Your task to perform on an android device: toggle pop-ups in chrome Image 0: 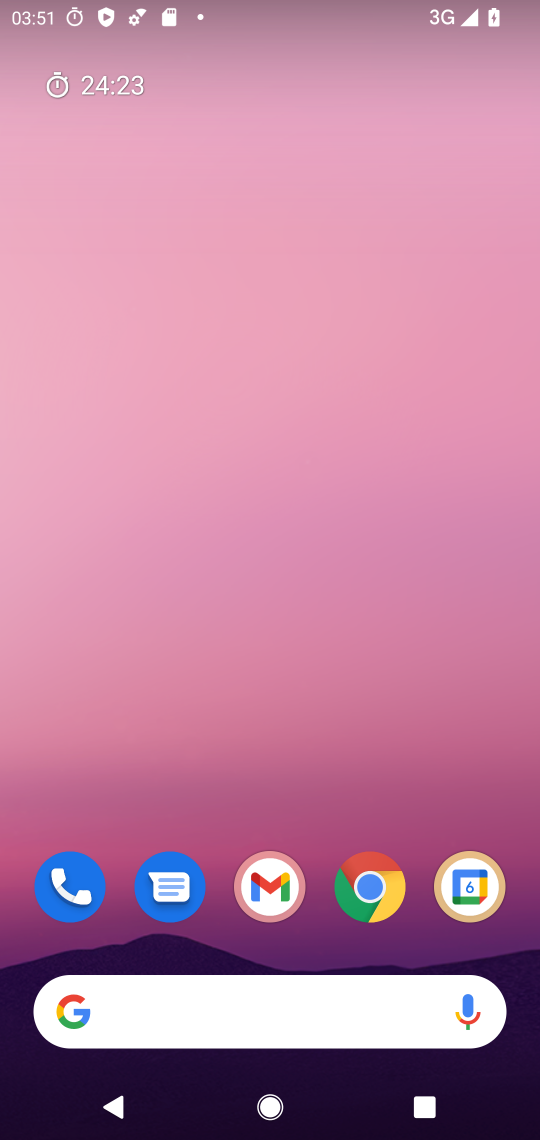
Step 0: drag from (354, 683) to (358, 307)
Your task to perform on an android device: toggle pop-ups in chrome Image 1: 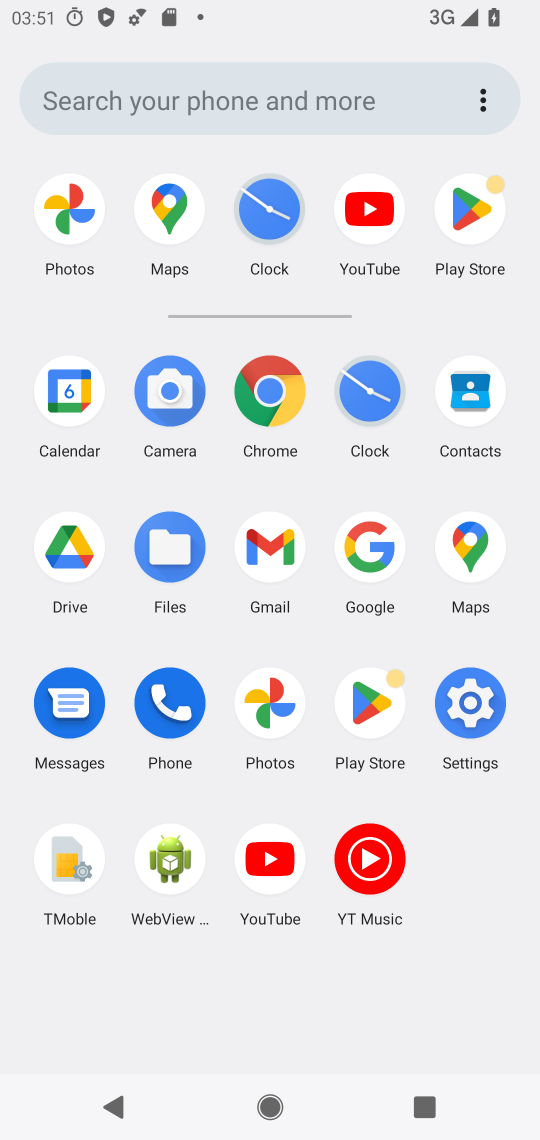
Step 1: click (271, 392)
Your task to perform on an android device: toggle pop-ups in chrome Image 2: 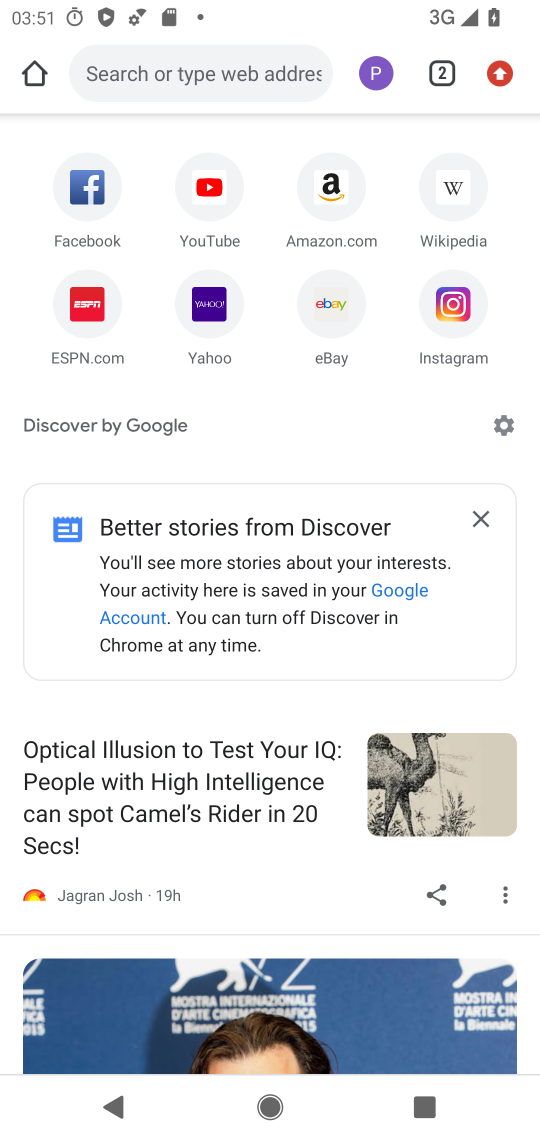
Step 2: click (496, 73)
Your task to perform on an android device: toggle pop-ups in chrome Image 3: 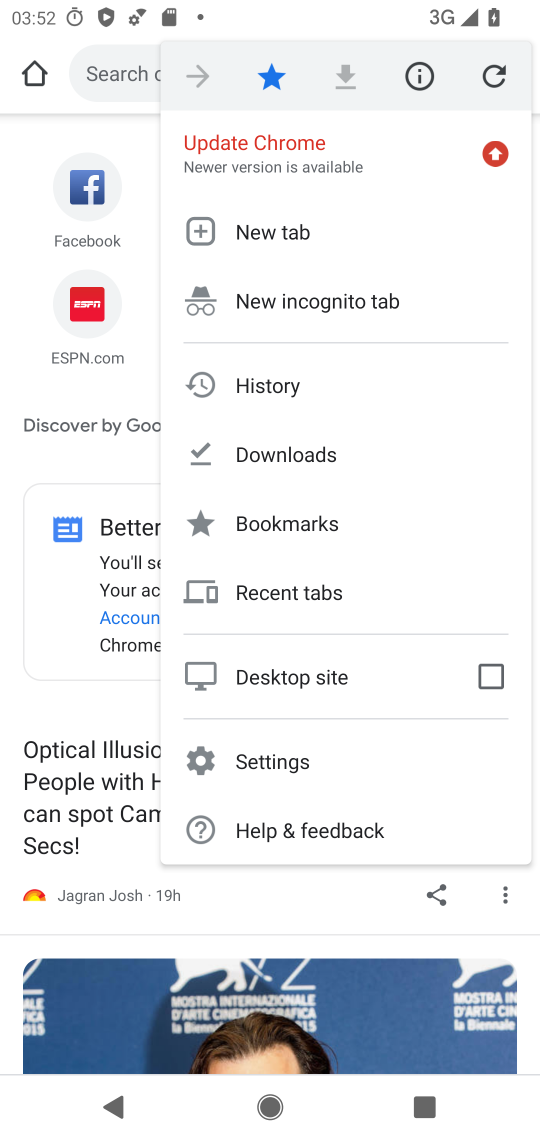
Step 3: click (322, 760)
Your task to perform on an android device: toggle pop-ups in chrome Image 4: 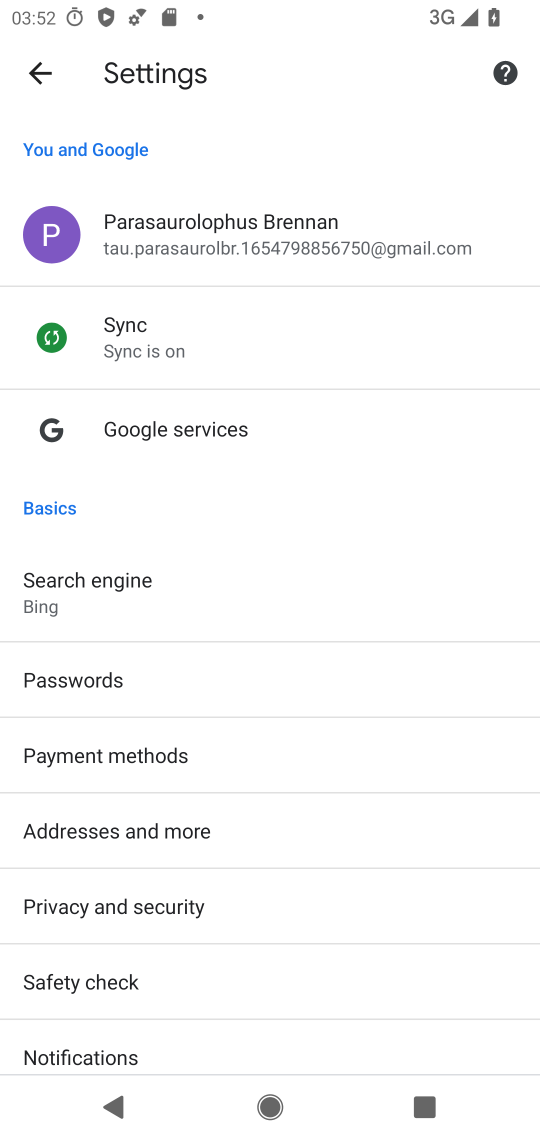
Step 4: drag from (347, 826) to (369, 690)
Your task to perform on an android device: toggle pop-ups in chrome Image 5: 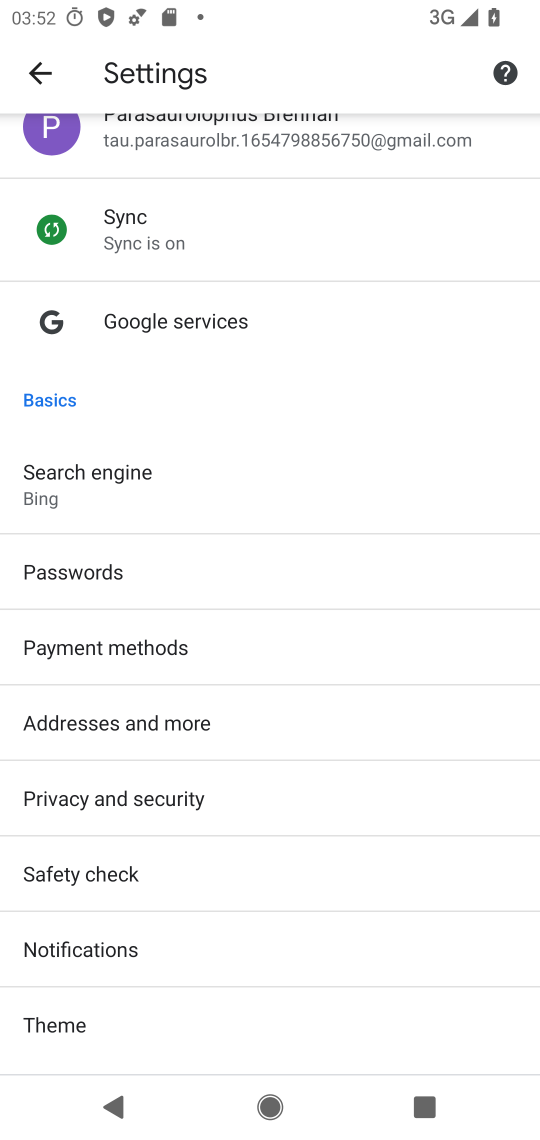
Step 5: drag from (372, 860) to (376, 685)
Your task to perform on an android device: toggle pop-ups in chrome Image 6: 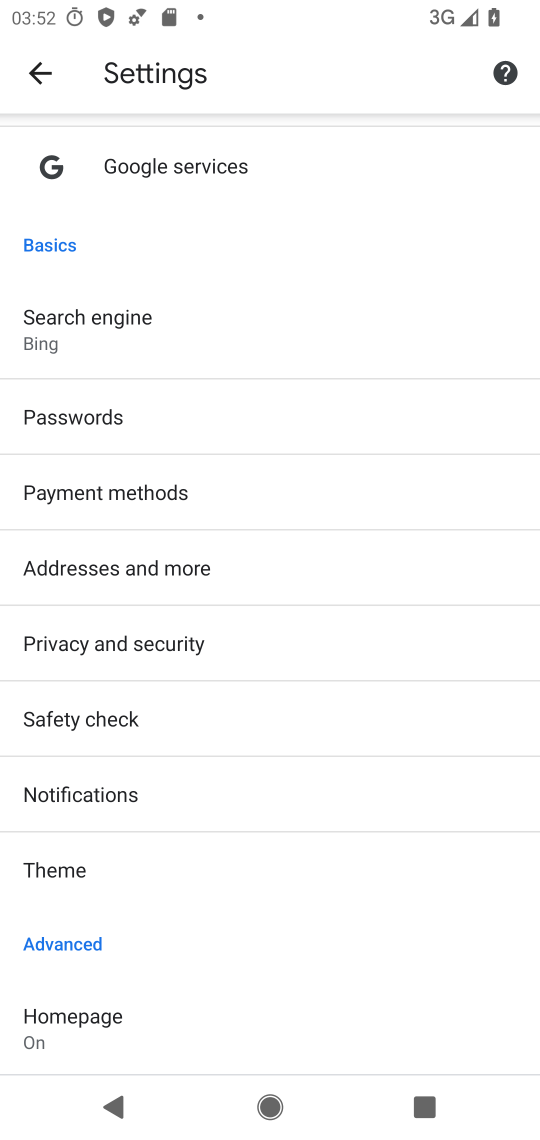
Step 6: drag from (412, 855) to (400, 701)
Your task to perform on an android device: toggle pop-ups in chrome Image 7: 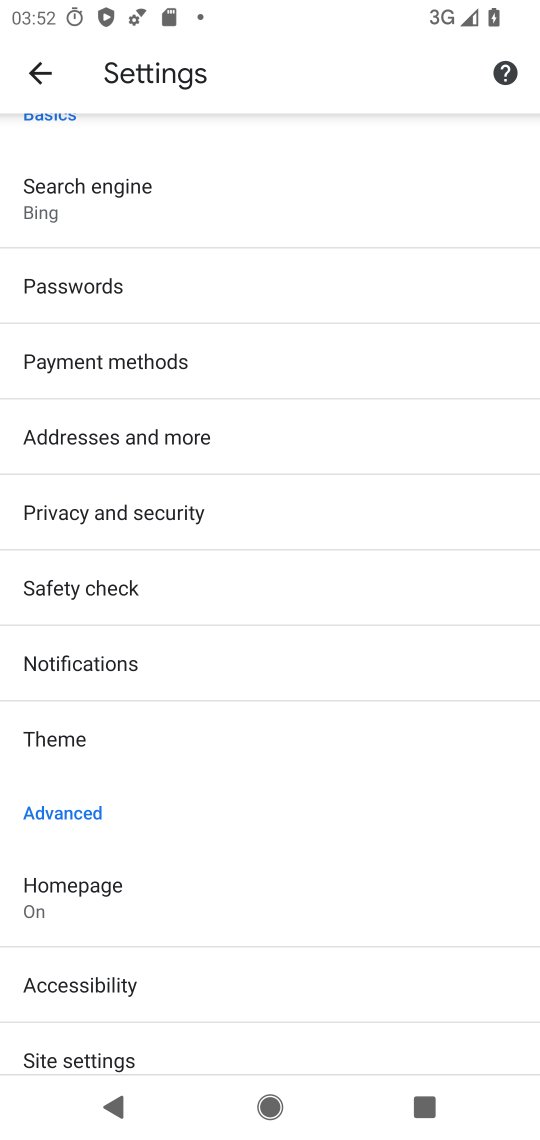
Step 7: drag from (356, 887) to (356, 719)
Your task to perform on an android device: toggle pop-ups in chrome Image 8: 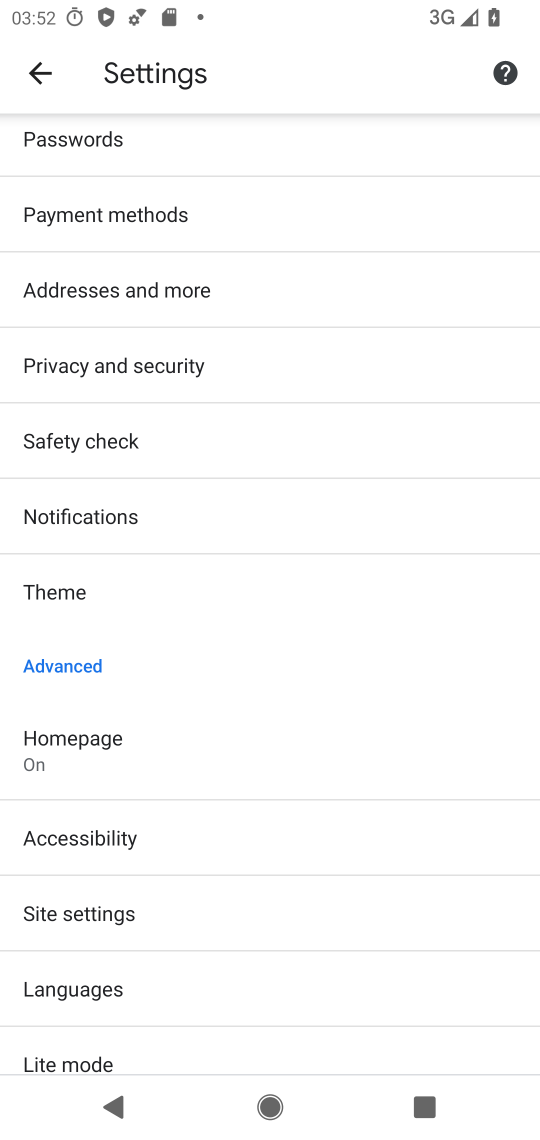
Step 8: click (360, 901)
Your task to perform on an android device: toggle pop-ups in chrome Image 9: 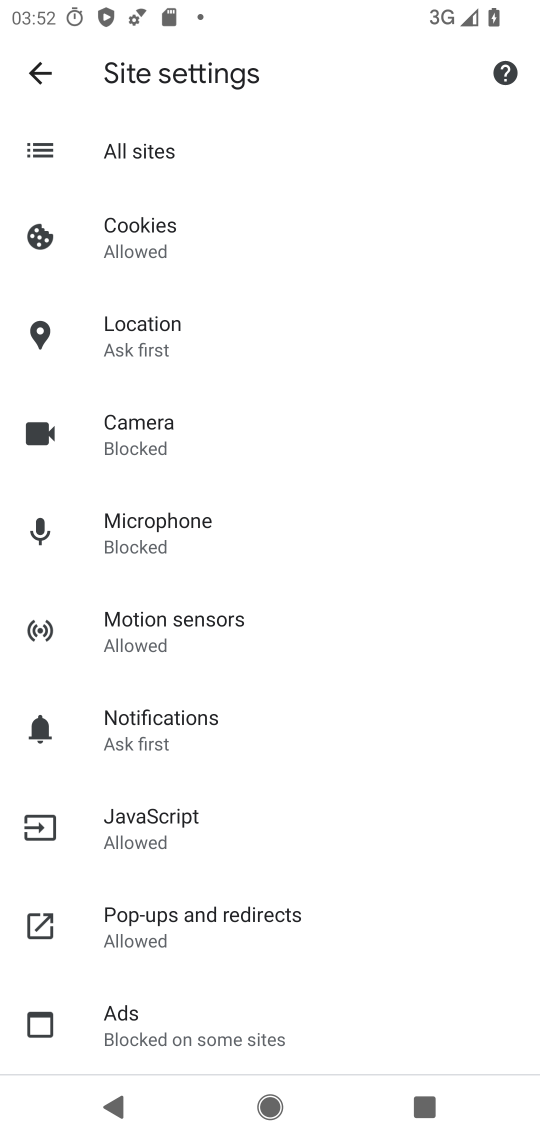
Step 9: drag from (366, 888) to (387, 713)
Your task to perform on an android device: toggle pop-ups in chrome Image 10: 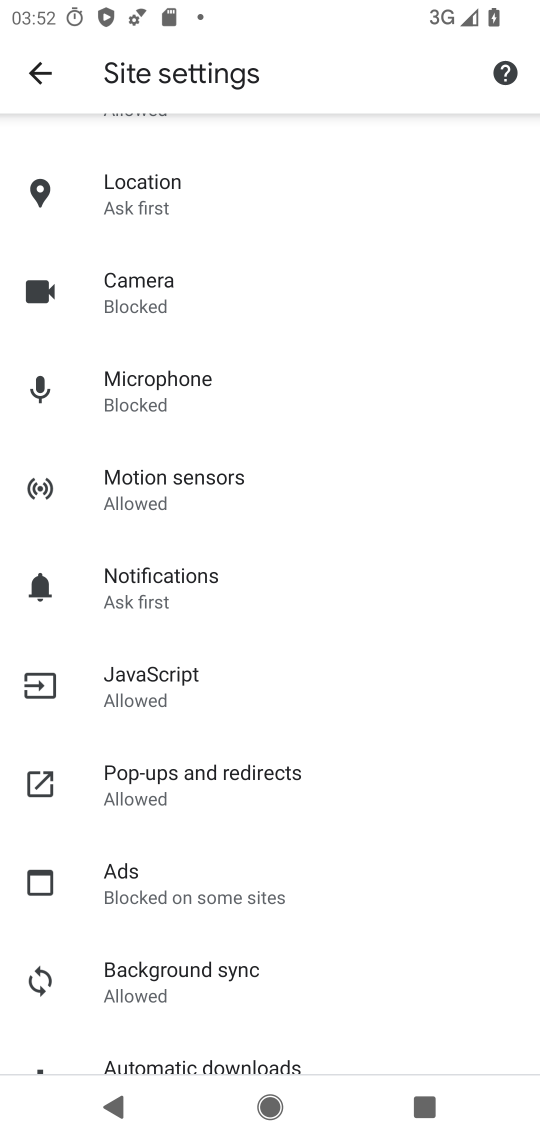
Step 10: drag from (392, 923) to (429, 656)
Your task to perform on an android device: toggle pop-ups in chrome Image 11: 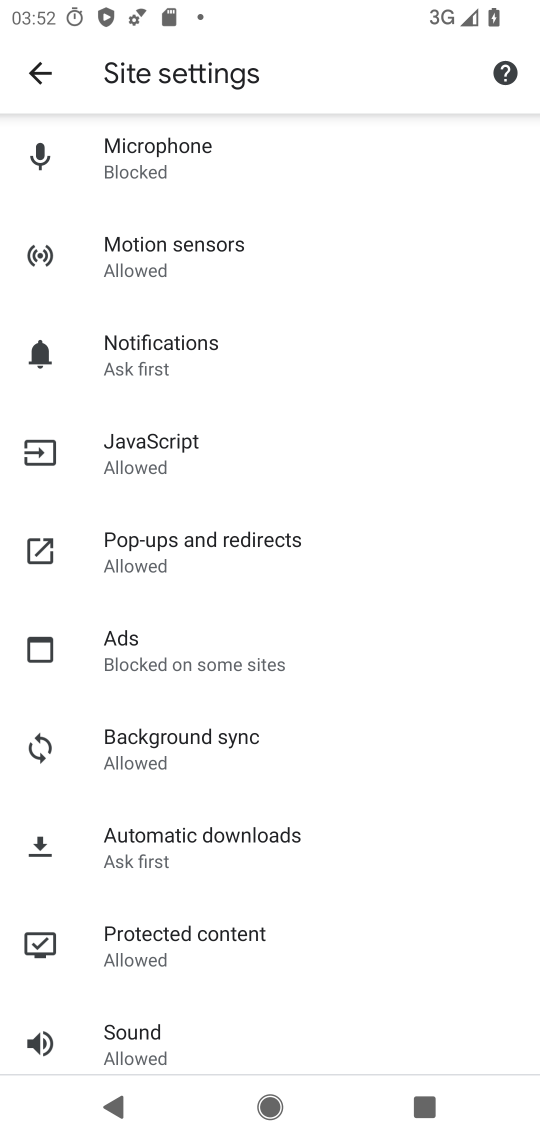
Step 11: drag from (406, 808) to (430, 650)
Your task to perform on an android device: toggle pop-ups in chrome Image 12: 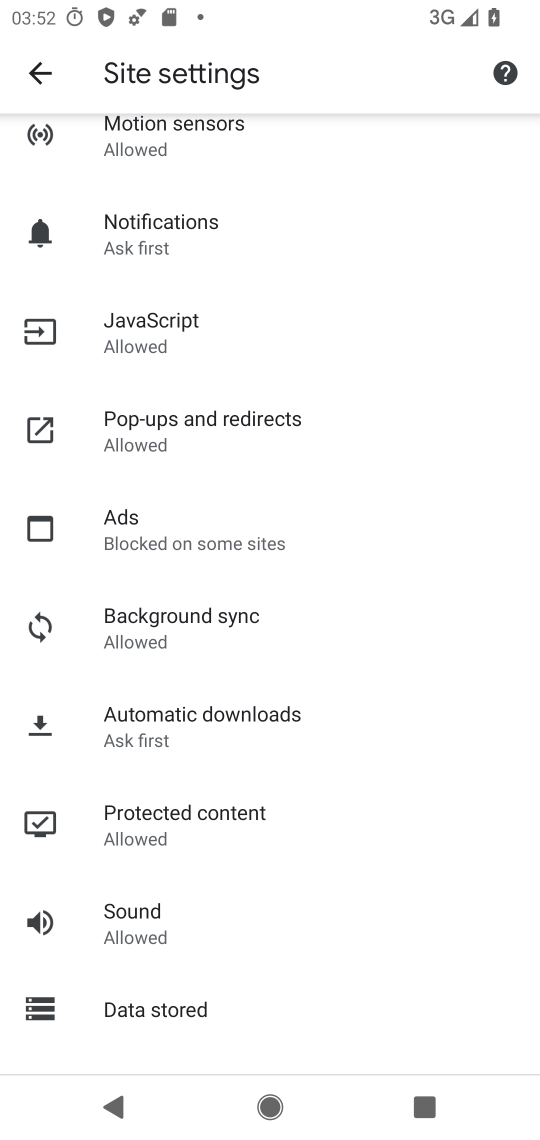
Step 12: drag from (425, 831) to (434, 662)
Your task to perform on an android device: toggle pop-ups in chrome Image 13: 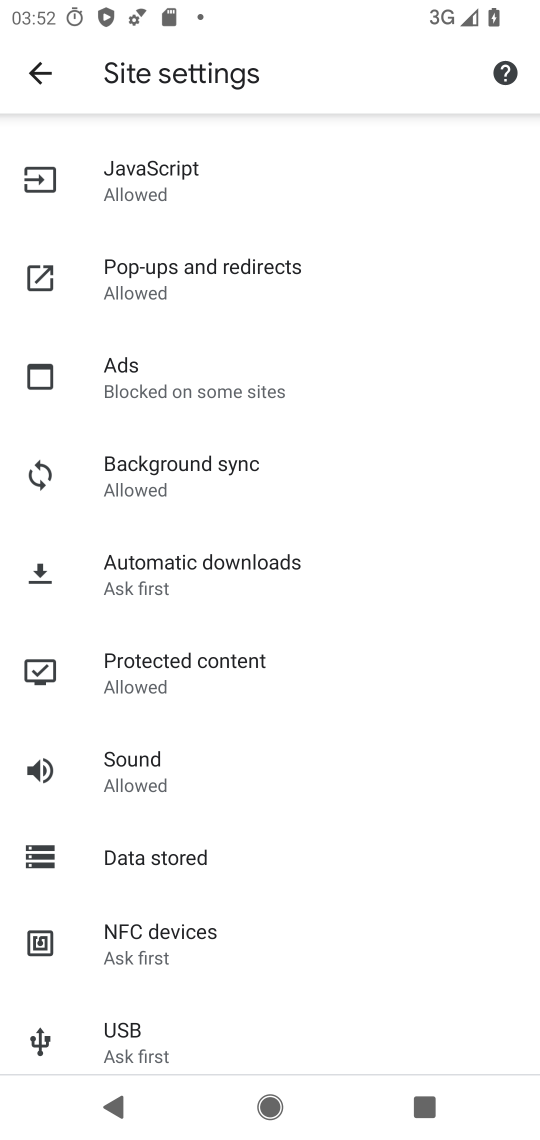
Step 13: drag from (409, 797) to (415, 649)
Your task to perform on an android device: toggle pop-ups in chrome Image 14: 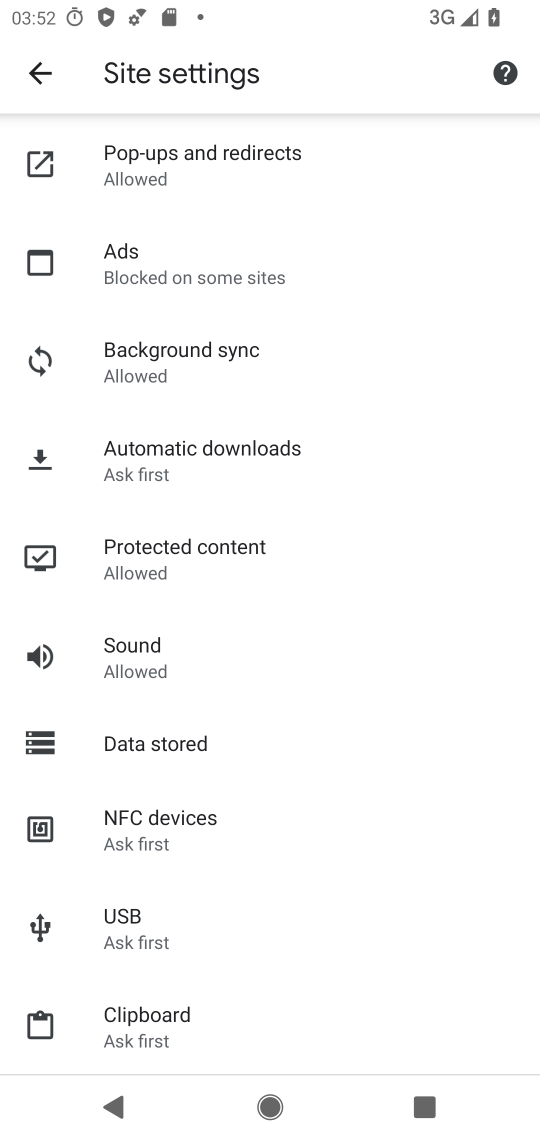
Step 14: drag from (396, 318) to (391, 541)
Your task to perform on an android device: toggle pop-ups in chrome Image 15: 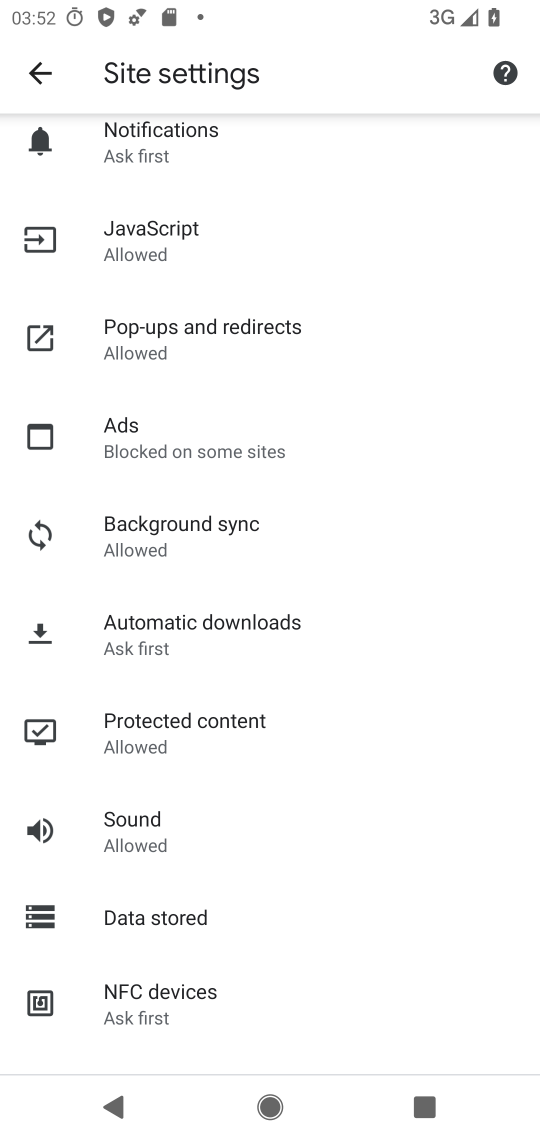
Step 15: click (237, 363)
Your task to perform on an android device: toggle pop-ups in chrome Image 16: 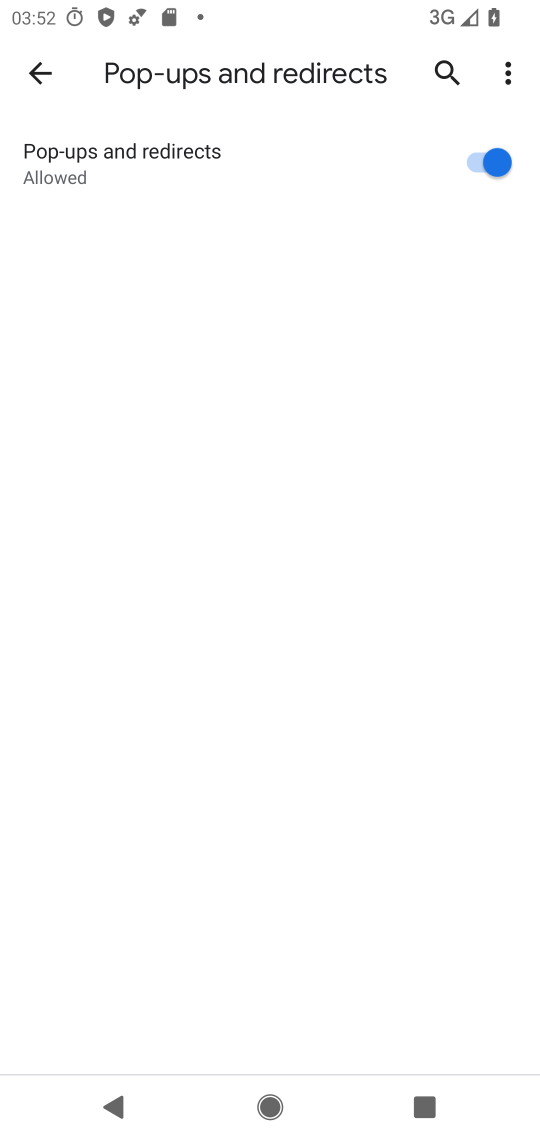
Step 16: click (494, 157)
Your task to perform on an android device: toggle pop-ups in chrome Image 17: 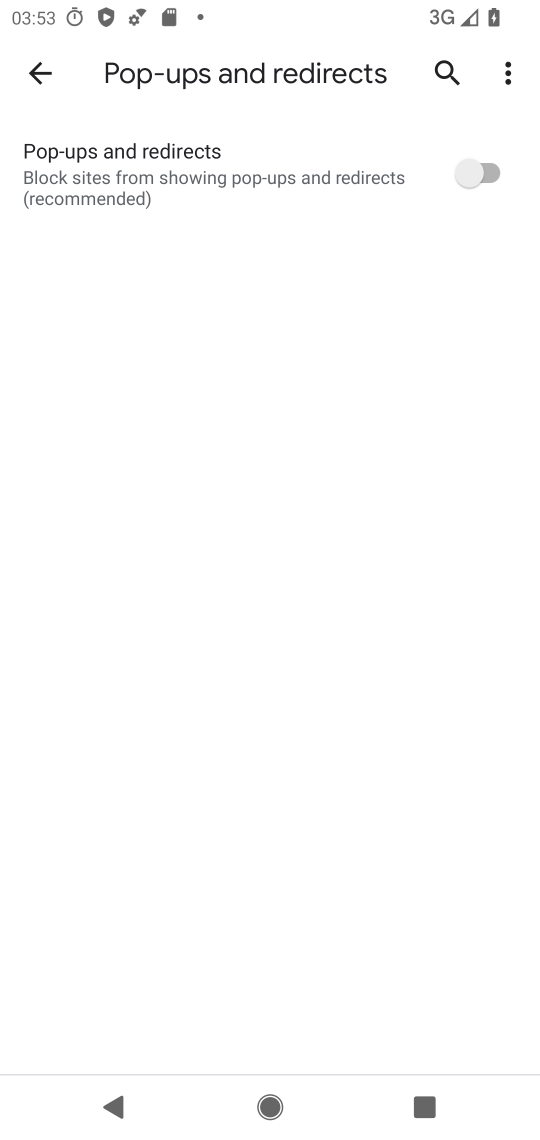
Step 17: task complete